Your task to perform on an android device: change the clock display to analog Image 0: 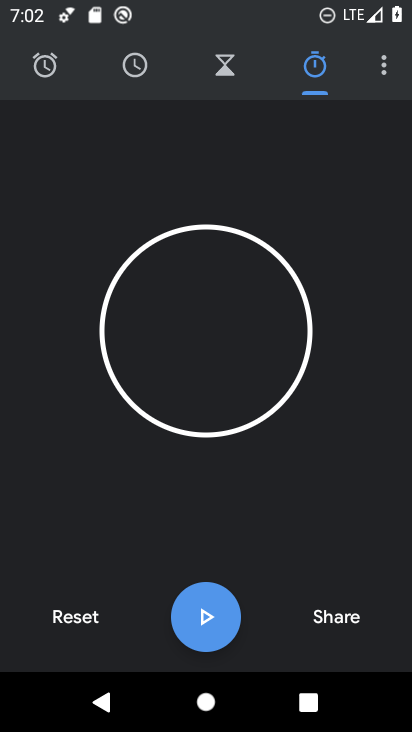
Step 0: press home button
Your task to perform on an android device: change the clock display to analog Image 1: 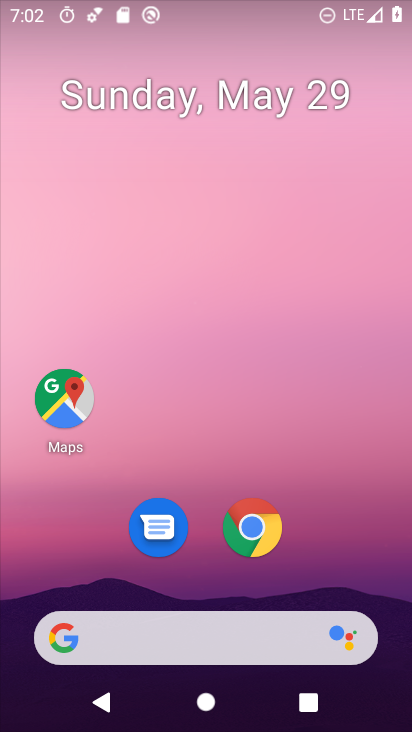
Step 1: drag from (394, 635) to (235, 9)
Your task to perform on an android device: change the clock display to analog Image 2: 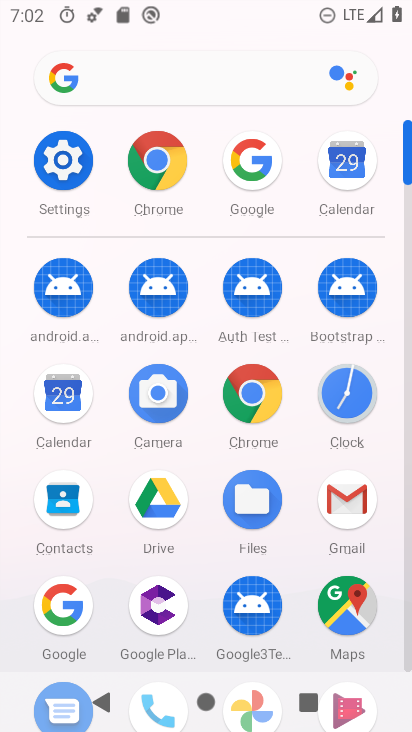
Step 2: click (354, 399)
Your task to perform on an android device: change the clock display to analog Image 3: 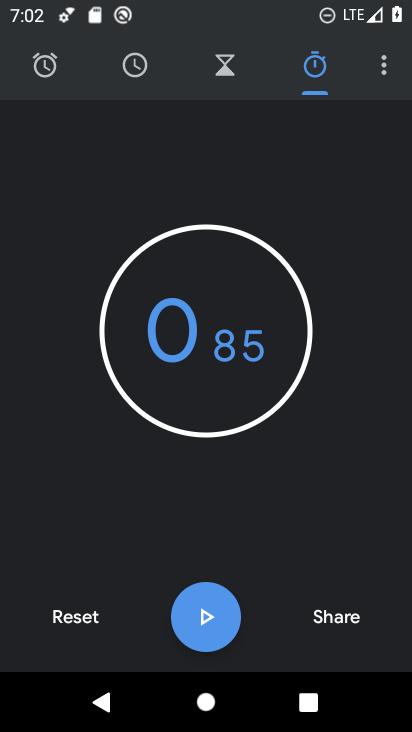
Step 3: click (386, 75)
Your task to perform on an android device: change the clock display to analog Image 4: 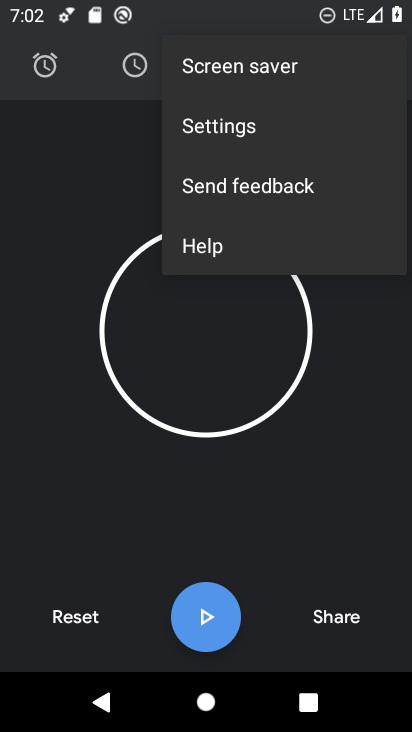
Step 4: click (238, 127)
Your task to perform on an android device: change the clock display to analog Image 5: 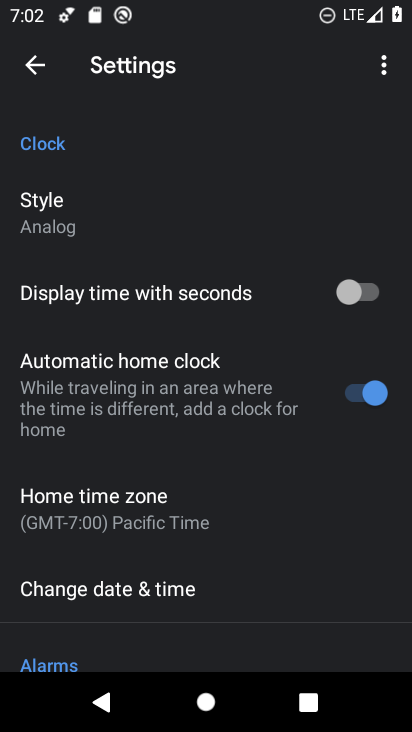
Step 5: click (162, 211)
Your task to perform on an android device: change the clock display to analog Image 6: 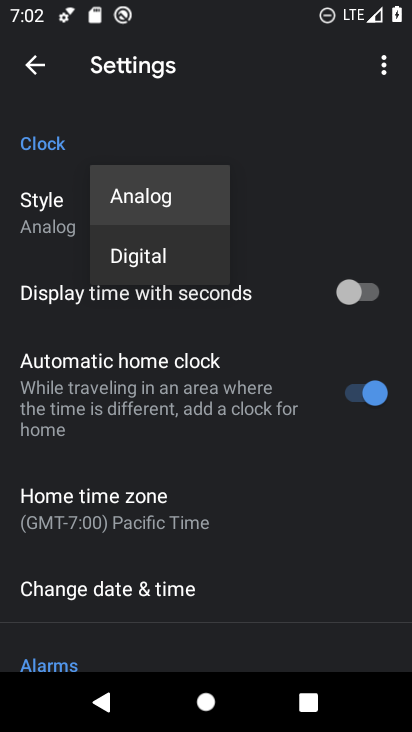
Step 6: click (187, 196)
Your task to perform on an android device: change the clock display to analog Image 7: 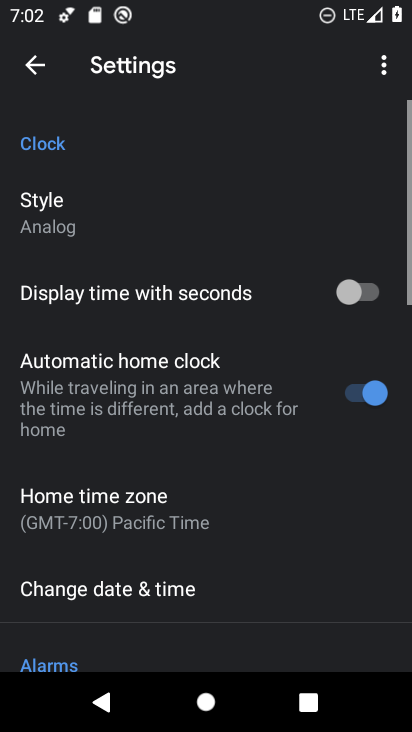
Step 7: task complete